Your task to perform on an android device: Show me popular videos on Youtube Image 0: 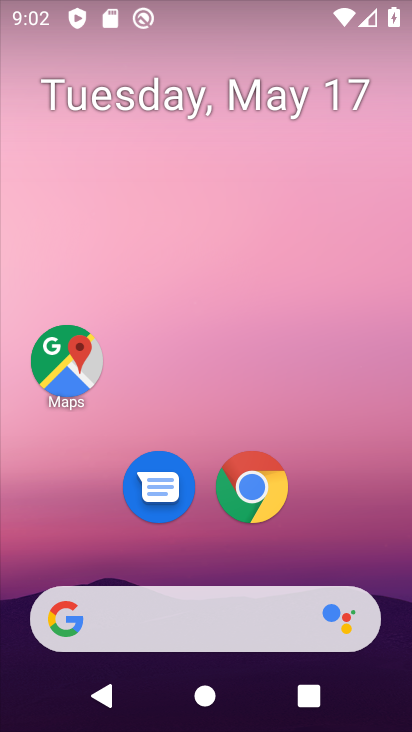
Step 0: press back button
Your task to perform on an android device: Show me popular videos on Youtube Image 1: 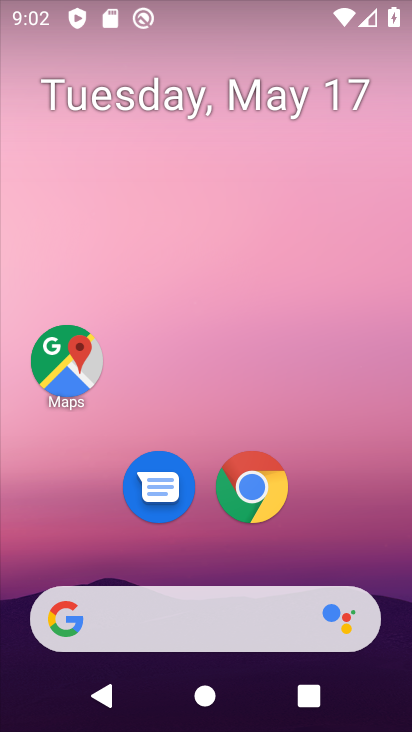
Step 1: drag from (270, 639) to (233, 165)
Your task to perform on an android device: Show me popular videos on Youtube Image 2: 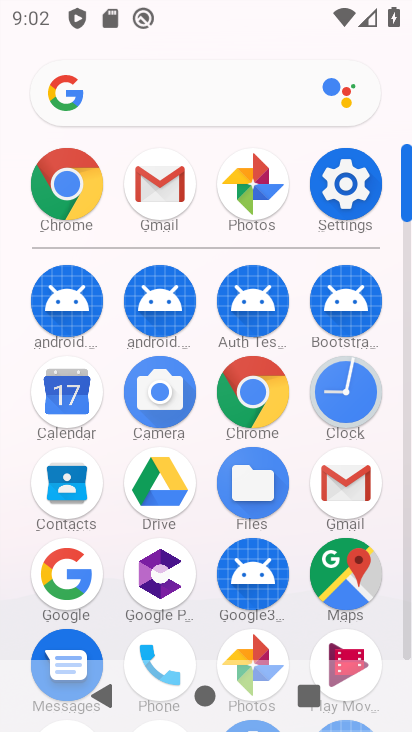
Step 2: drag from (203, 542) to (192, 279)
Your task to perform on an android device: Show me popular videos on Youtube Image 3: 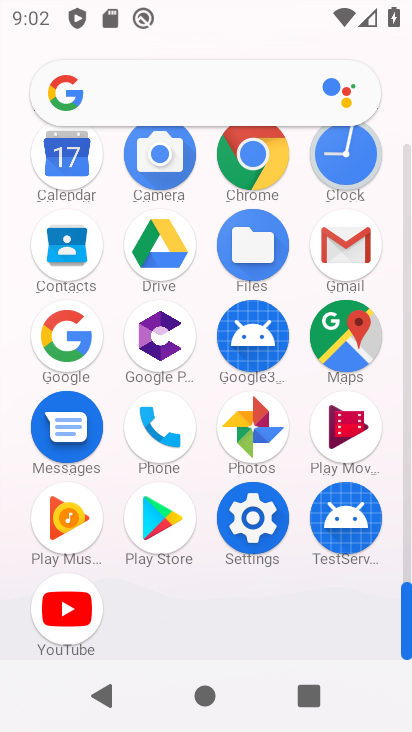
Step 3: click (81, 602)
Your task to perform on an android device: Show me popular videos on Youtube Image 4: 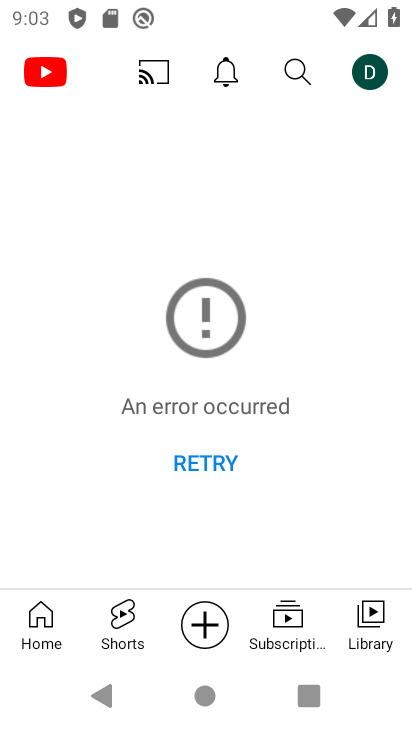
Step 4: click (294, 58)
Your task to perform on an android device: Show me popular videos on Youtube Image 5: 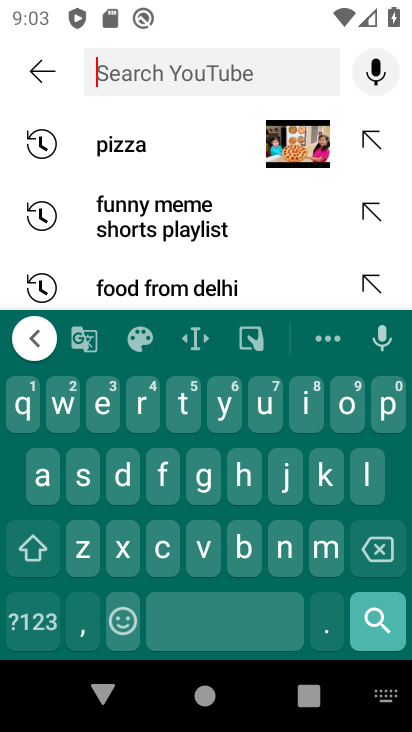
Step 5: click (385, 406)
Your task to perform on an android device: Show me popular videos on Youtube Image 6: 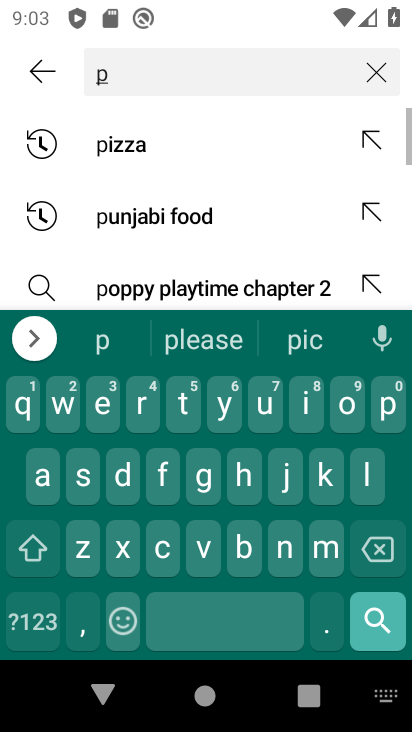
Step 6: click (349, 405)
Your task to perform on an android device: Show me popular videos on Youtube Image 7: 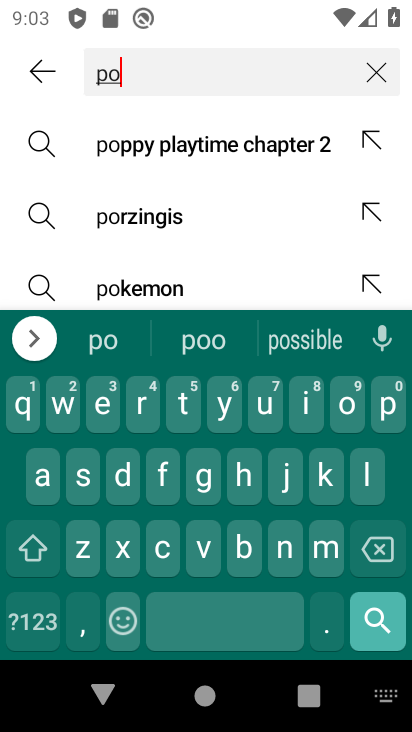
Step 7: click (389, 413)
Your task to perform on an android device: Show me popular videos on Youtube Image 8: 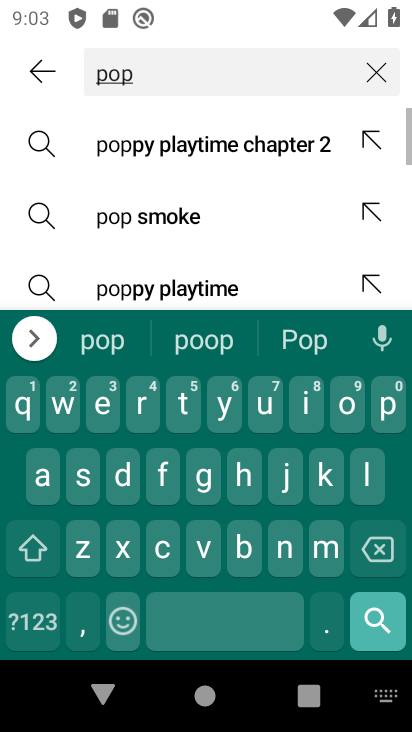
Step 8: click (269, 407)
Your task to perform on an android device: Show me popular videos on Youtube Image 9: 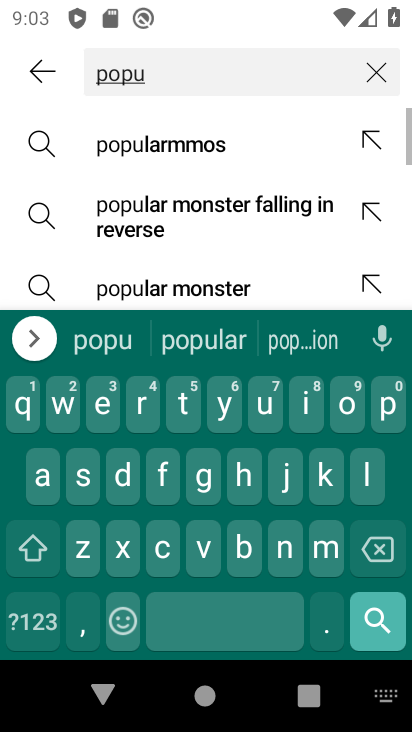
Step 9: click (193, 351)
Your task to perform on an android device: Show me popular videos on Youtube Image 10: 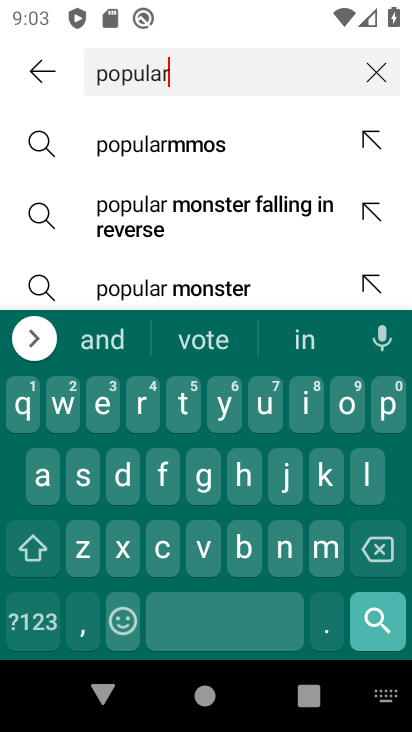
Step 10: click (207, 548)
Your task to perform on an android device: Show me popular videos on Youtube Image 11: 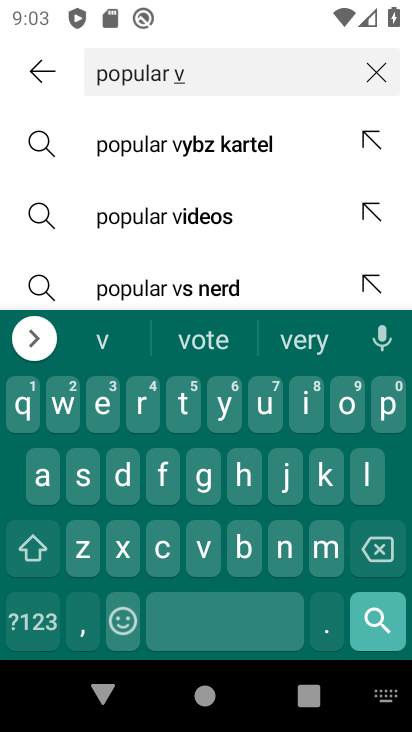
Step 11: click (193, 223)
Your task to perform on an android device: Show me popular videos on Youtube Image 12: 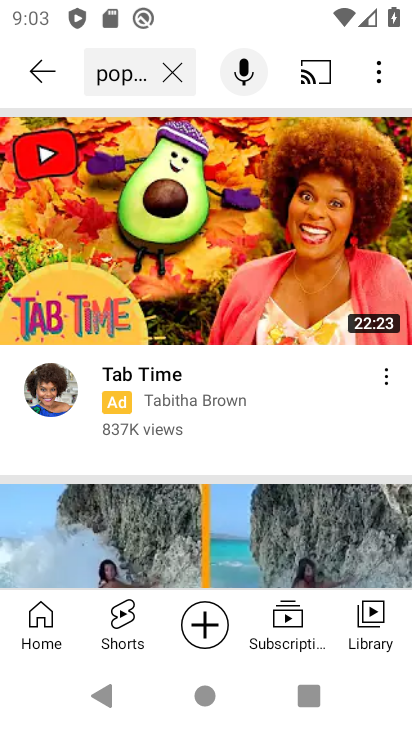
Step 12: task complete